Your task to perform on an android device: Search for Italian restaurants on Maps Image 0: 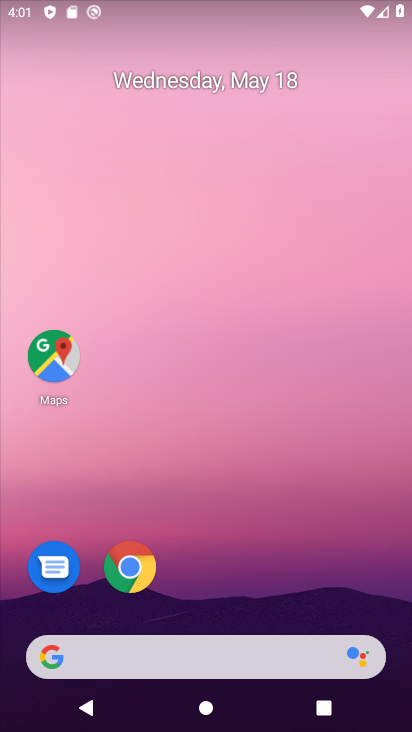
Step 0: click (56, 362)
Your task to perform on an android device: Search for Italian restaurants on Maps Image 1: 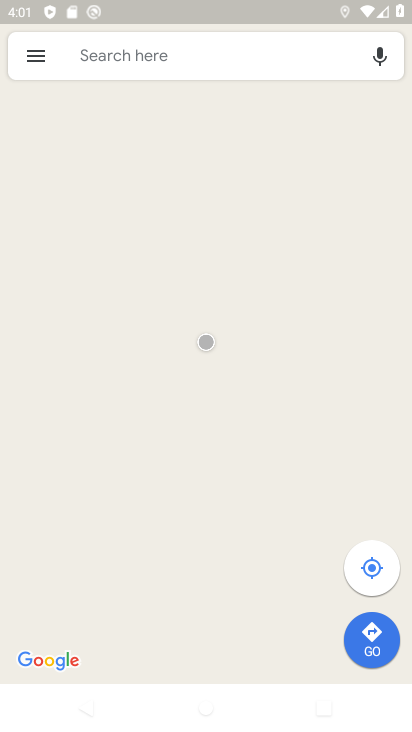
Step 1: click (138, 71)
Your task to perform on an android device: Search for Italian restaurants on Maps Image 2: 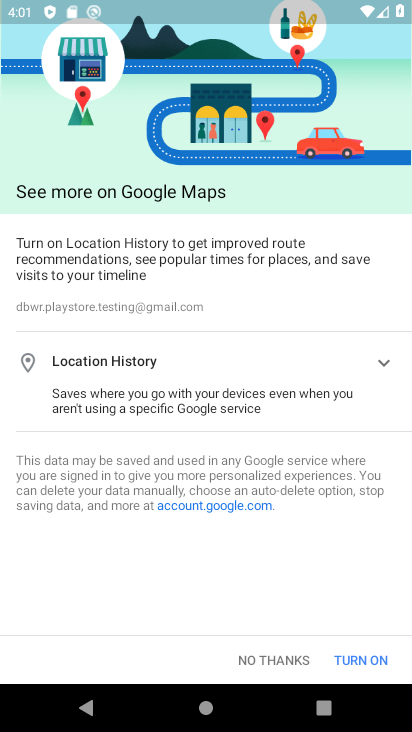
Step 2: click (284, 656)
Your task to perform on an android device: Search for Italian restaurants on Maps Image 3: 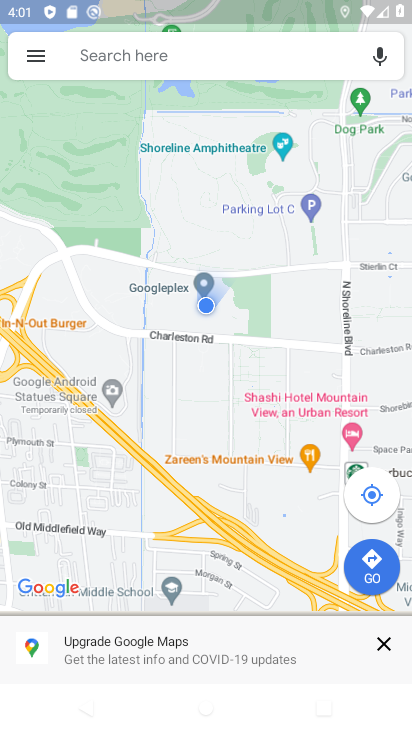
Step 3: click (224, 56)
Your task to perform on an android device: Search for Italian restaurants on Maps Image 4: 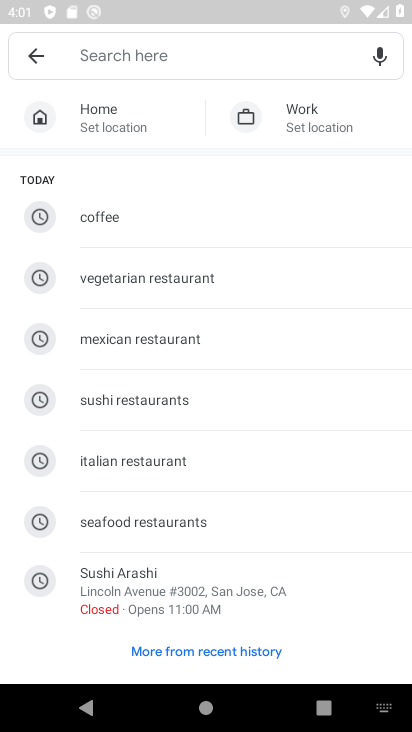
Step 4: type " Italian restaurants "
Your task to perform on an android device: Search for Italian restaurants on Maps Image 5: 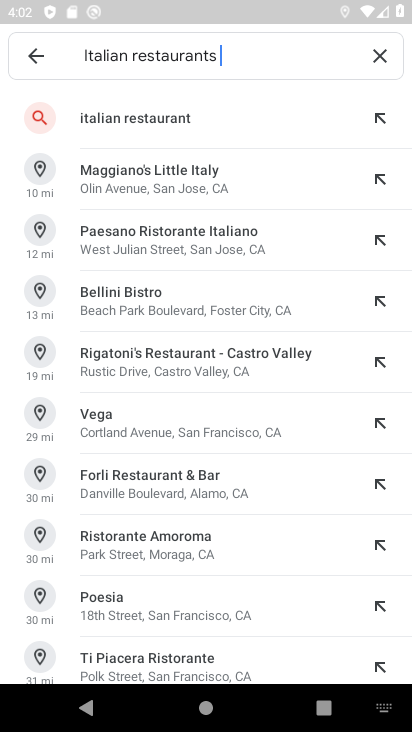
Step 5: click (161, 109)
Your task to perform on an android device: Search for Italian restaurants on Maps Image 6: 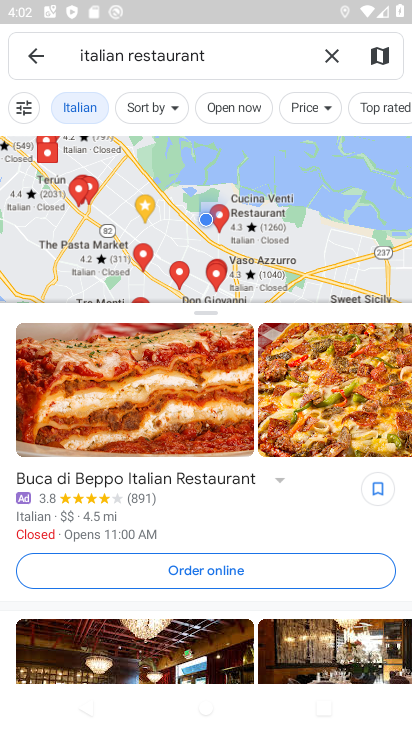
Step 6: task complete